Your task to perform on an android device: Go to Google maps Image 0: 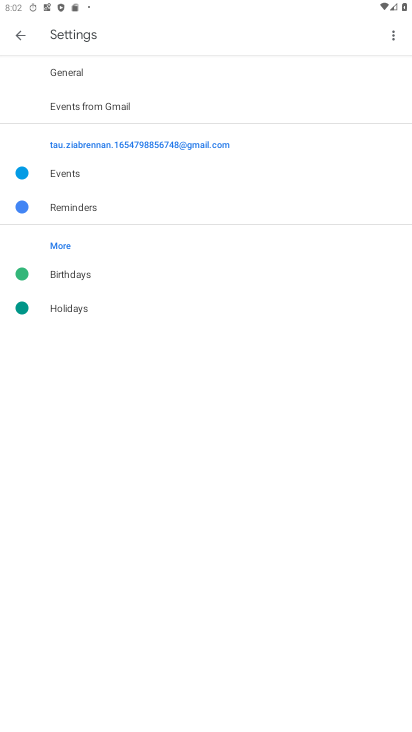
Step 0: press home button
Your task to perform on an android device: Go to Google maps Image 1: 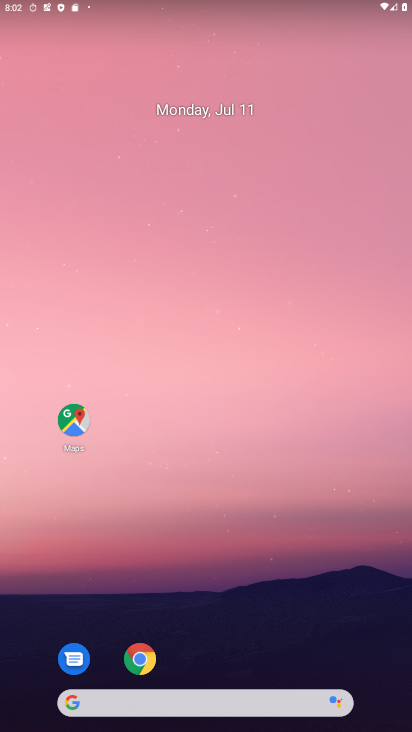
Step 1: drag from (316, 560) to (298, 0)
Your task to perform on an android device: Go to Google maps Image 2: 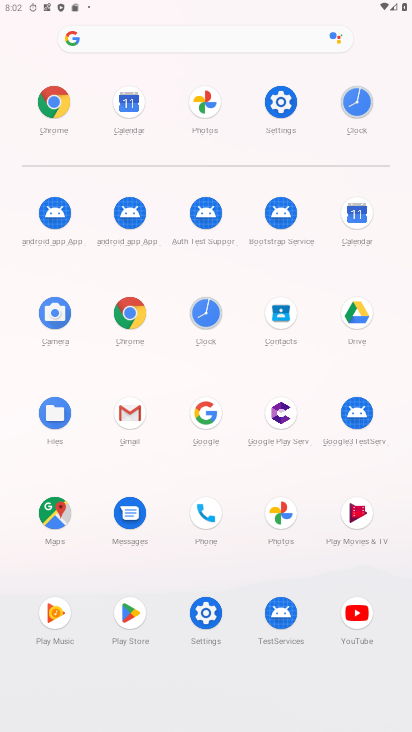
Step 2: click (40, 516)
Your task to perform on an android device: Go to Google maps Image 3: 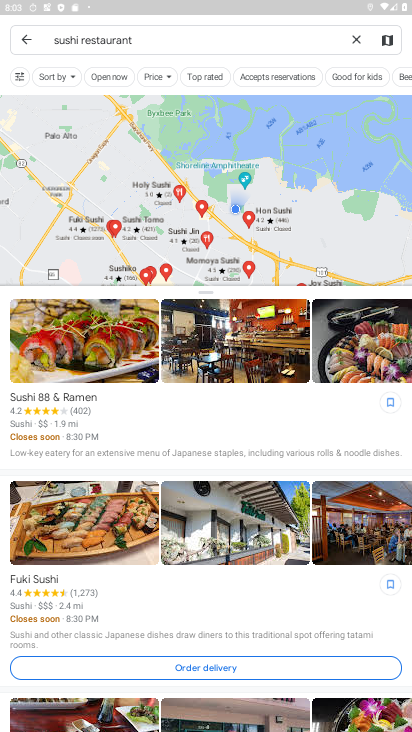
Step 3: task complete